Your task to perform on an android device: toggle javascript in the chrome app Image 0: 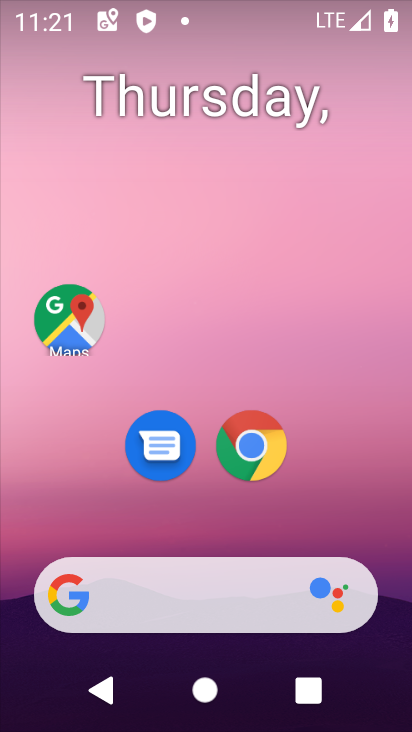
Step 0: click (257, 453)
Your task to perform on an android device: toggle javascript in the chrome app Image 1: 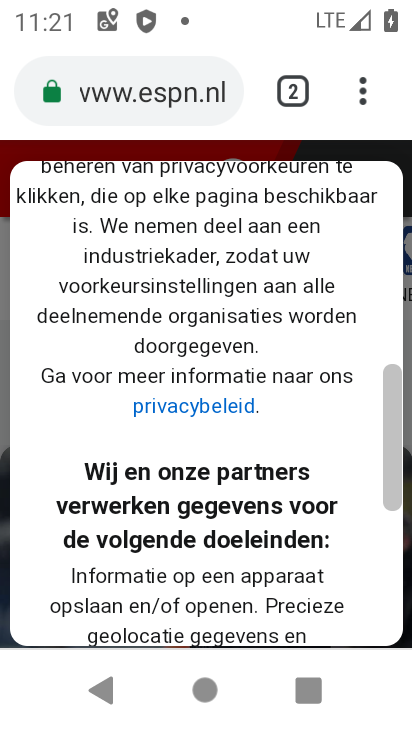
Step 1: drag from (177, 600) to (278, 310)
Your task to perform on an android device: toggle javascript in the chrome app Image 2: 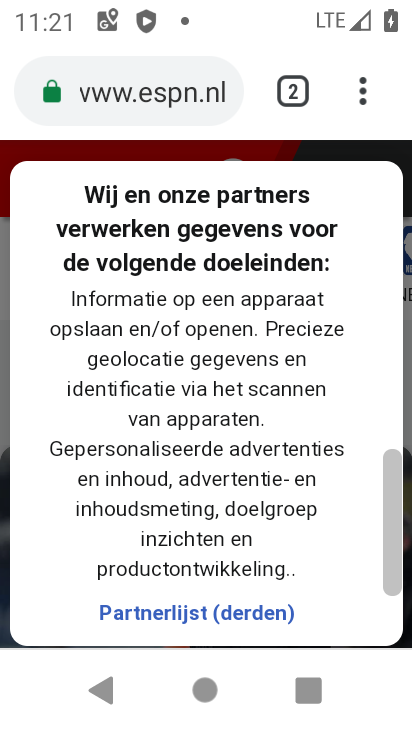
Step 2: drag from (374, 105) to (285, 509)
Your task to perform on an android device: toggle javascript in the chrome app Image 3: 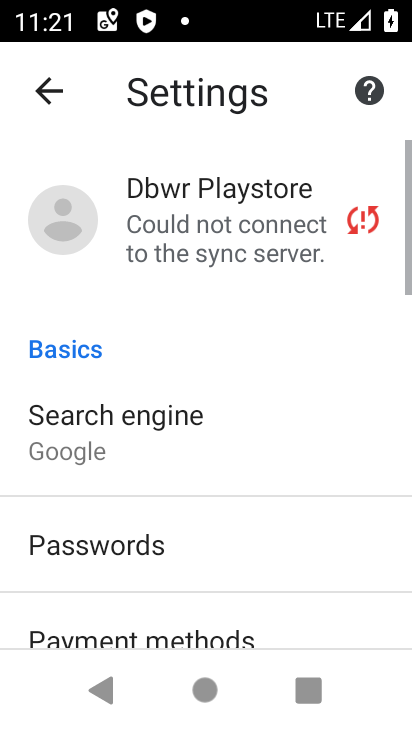
Step 3: drag from (272, 581) to (382, 178)
Your task to perform on an android device: toggle javascript in the chrome app Image 4: 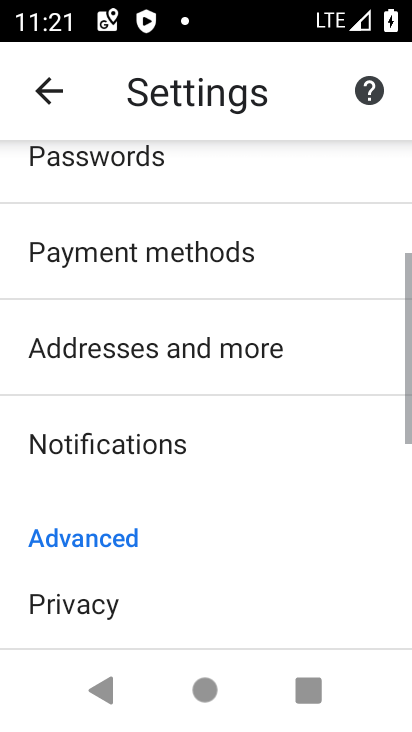
Step 4: drag from (214, 598) to (310, 308)
Your task to perform on an android device: toggle javascript in the chrome app Image 5: 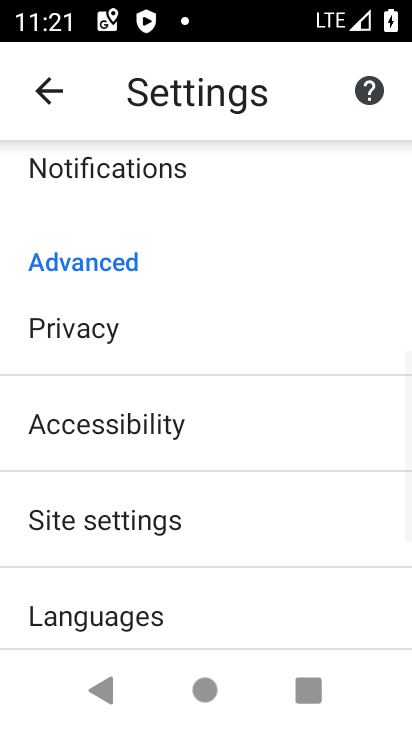
Step 5: click (255, 529)
Your task to perform on an android device: toggle javascript in the chrome app Image 6: 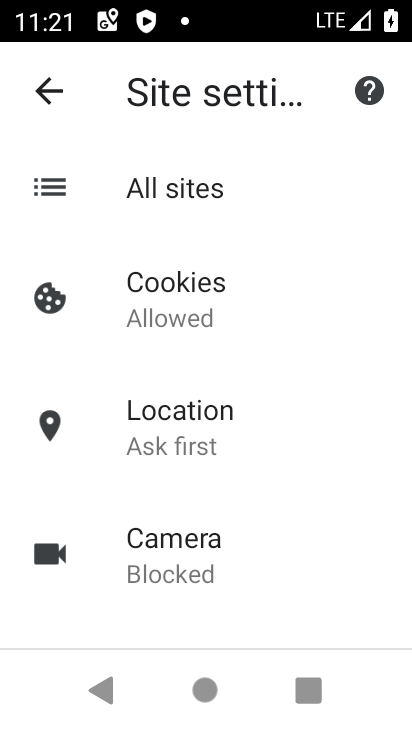
Step 6: drag from (181, 592) to (286, 266)
Your task to perform on an android device: toggle javascript in the chrome app Image 7: 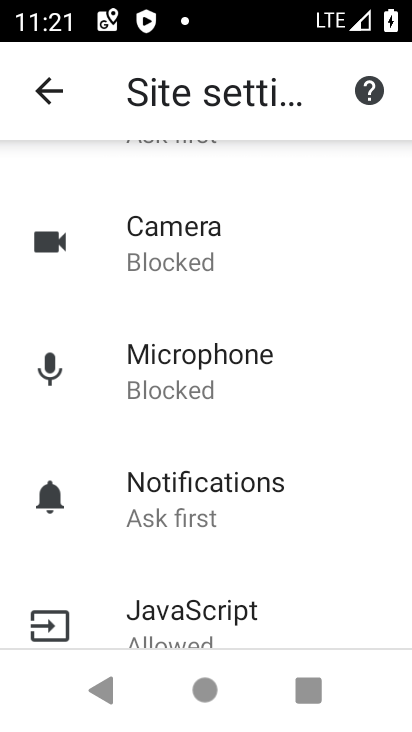
Step 7: drag from (229, 550) to (290, 290)
Your task to perform on an android device: toggle javascript in the chrome app Image 8: 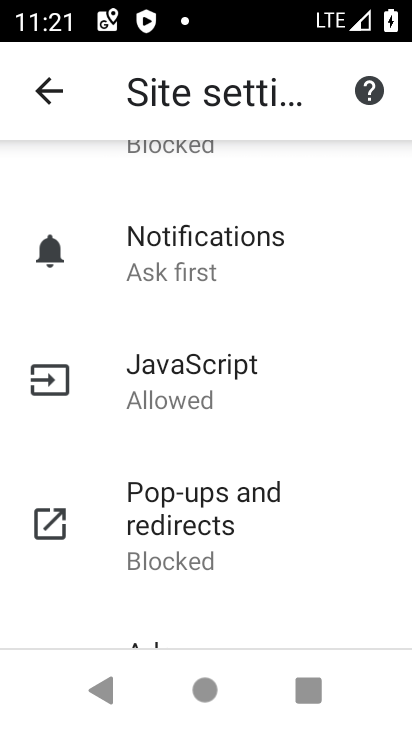
Step 8: click (269, 376)
Your task to perform on an android device: toggle javascript in the chrome app Image 9: 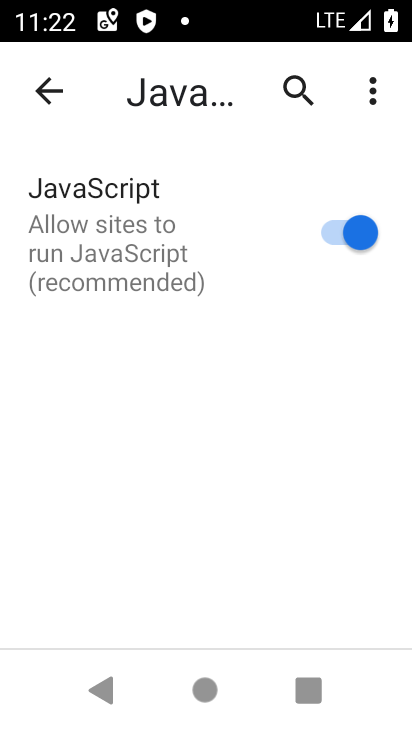
Step 9: click (305, 236)
Your task to perform on an android device: toggle javascript in the chrome app Image 10: 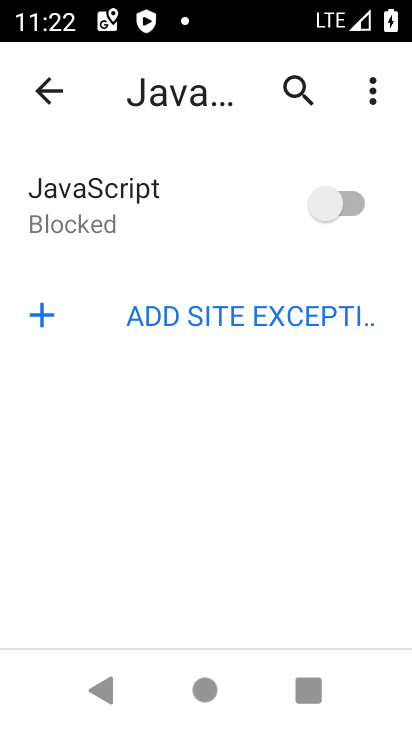
Step 10: task complete